Your task to perform on an android device: check storage Image 0: 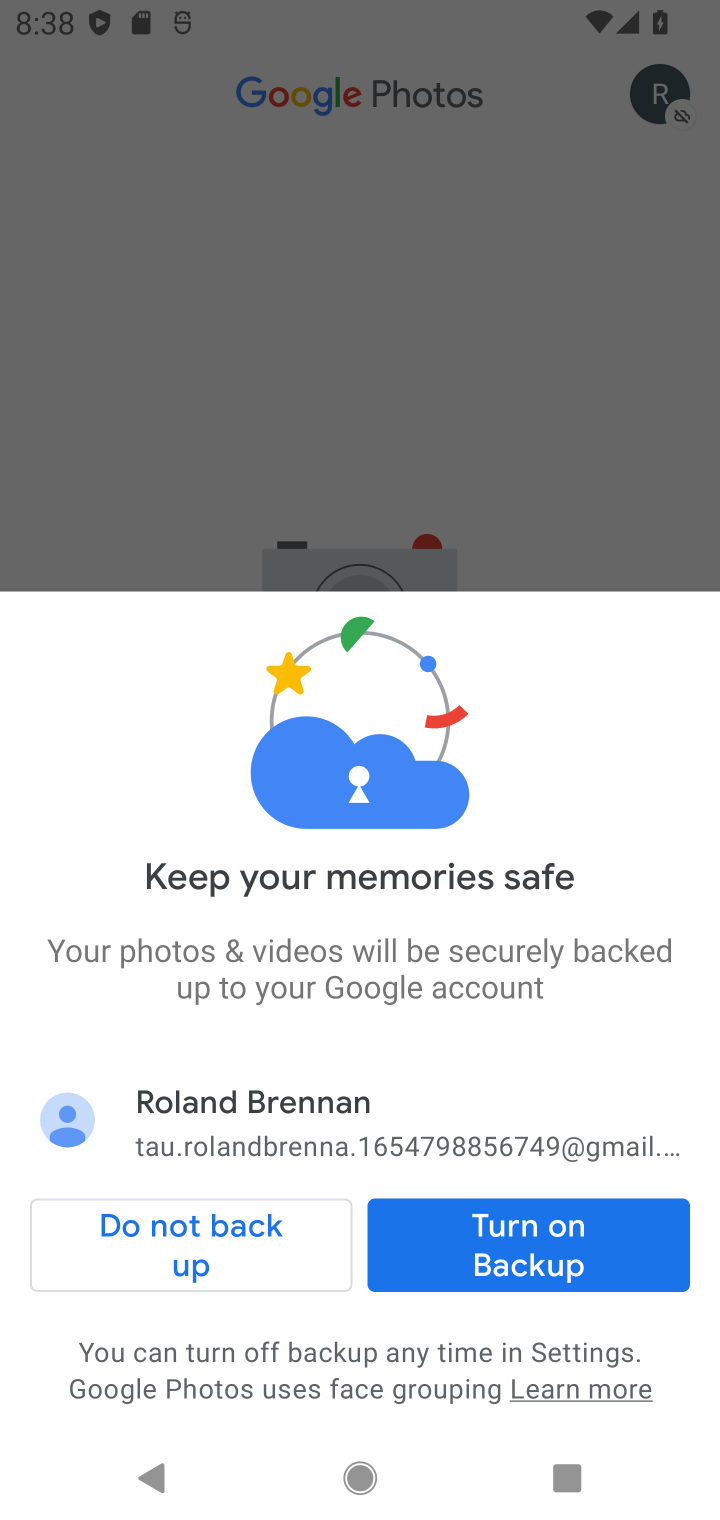
Step 0: press home button
Your task to perform on an android device: check storage Image 1: 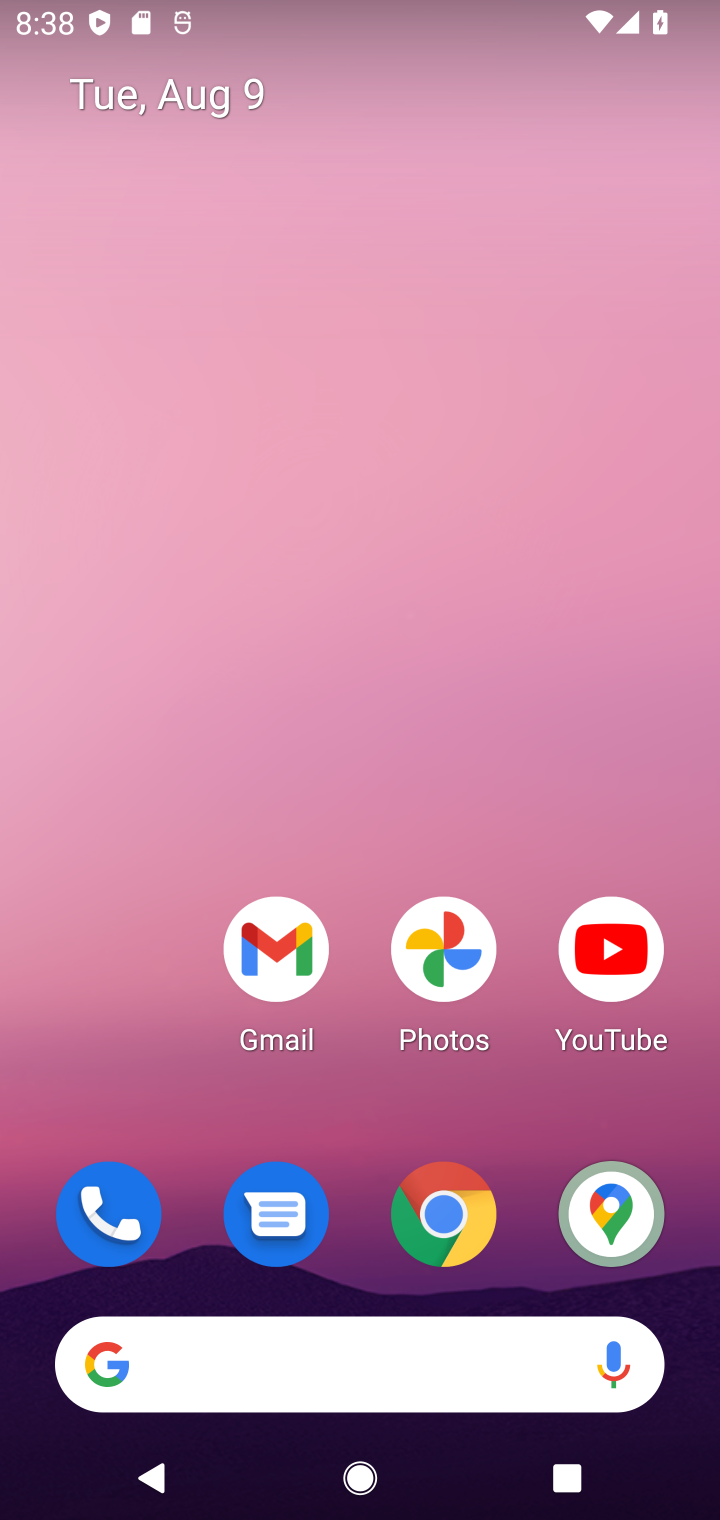
Step 1: drag from (27, 1419) to (143, 872)
Your task to perform on an android device: check storage Image 2: 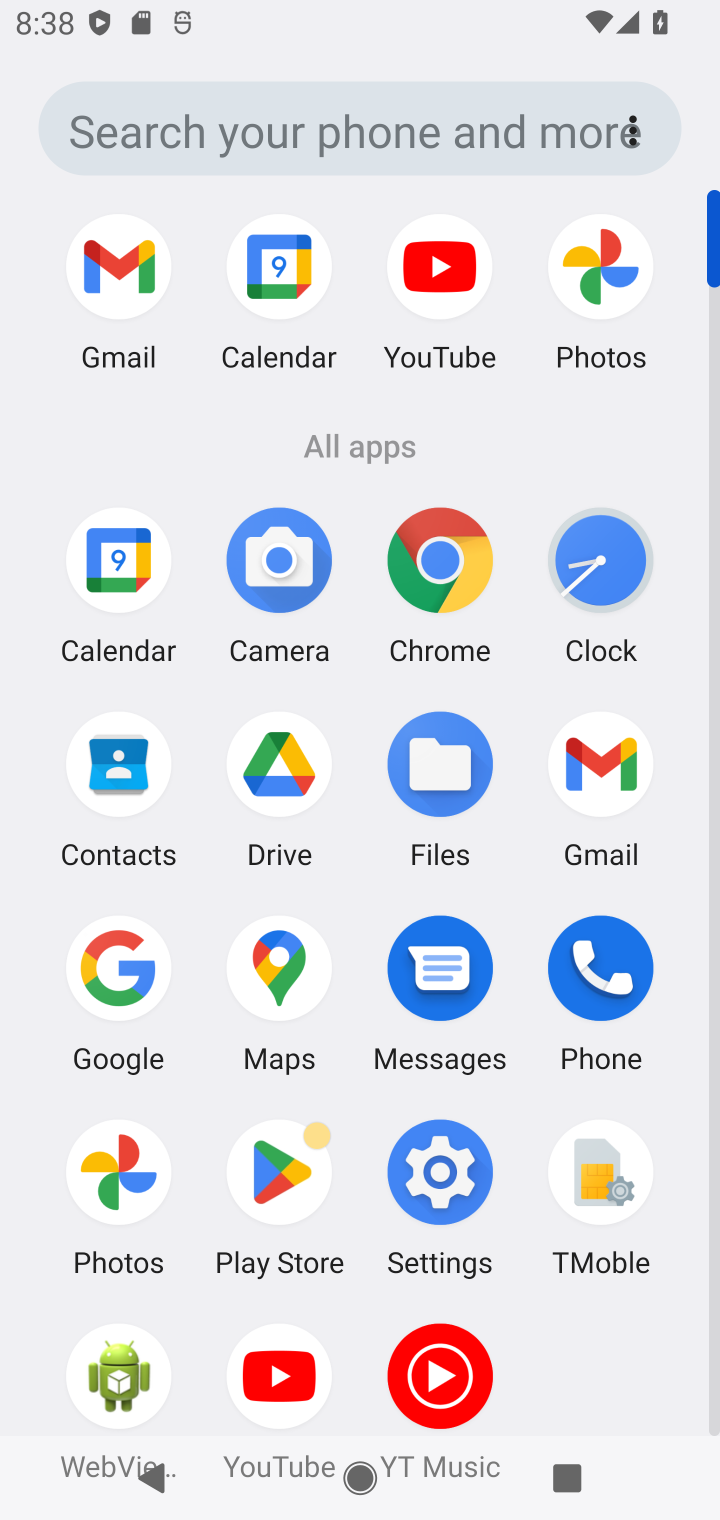
Step 2: click (388, 1177)
Your task to perform on an android device: check storage Image 3: 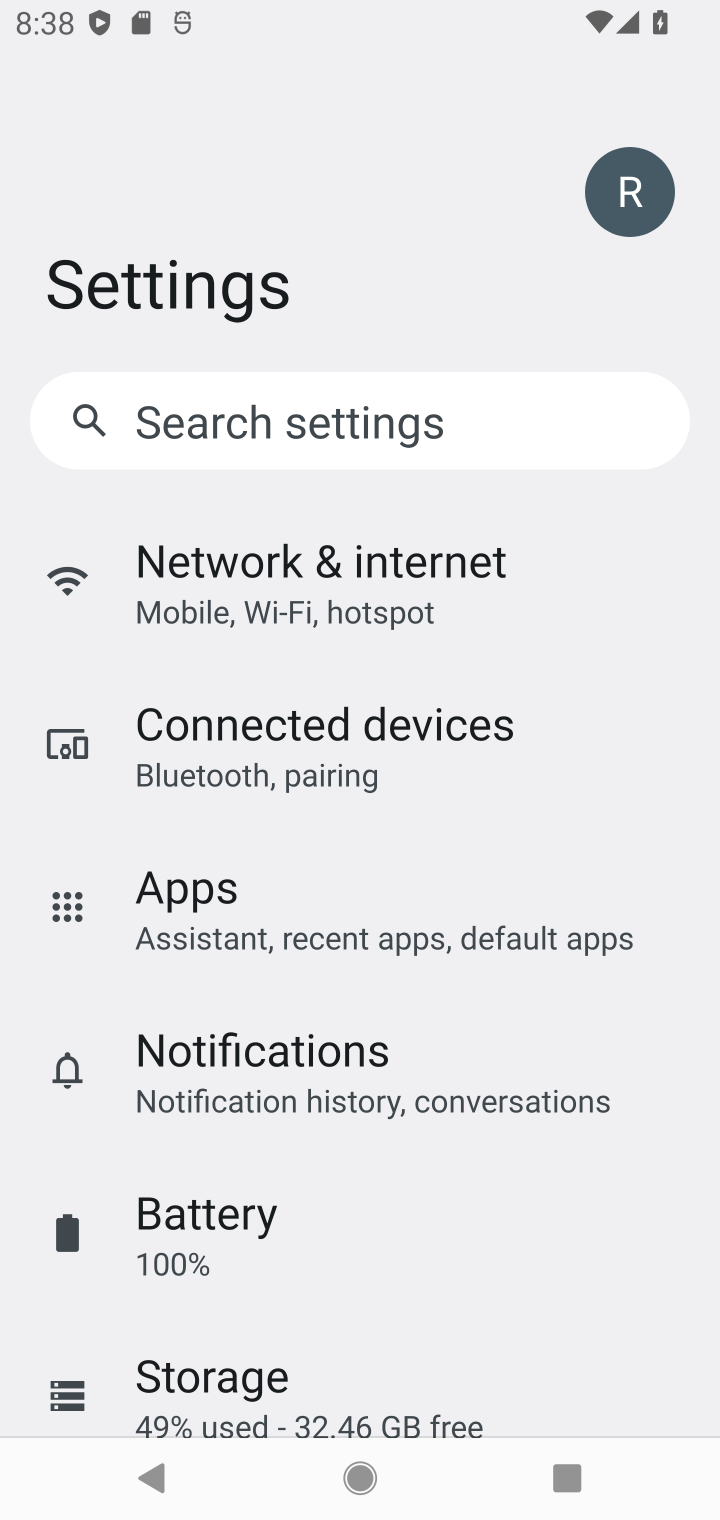
Step 3: click (241, 1369)
Your task to perform on an android device: check storage Image 4: 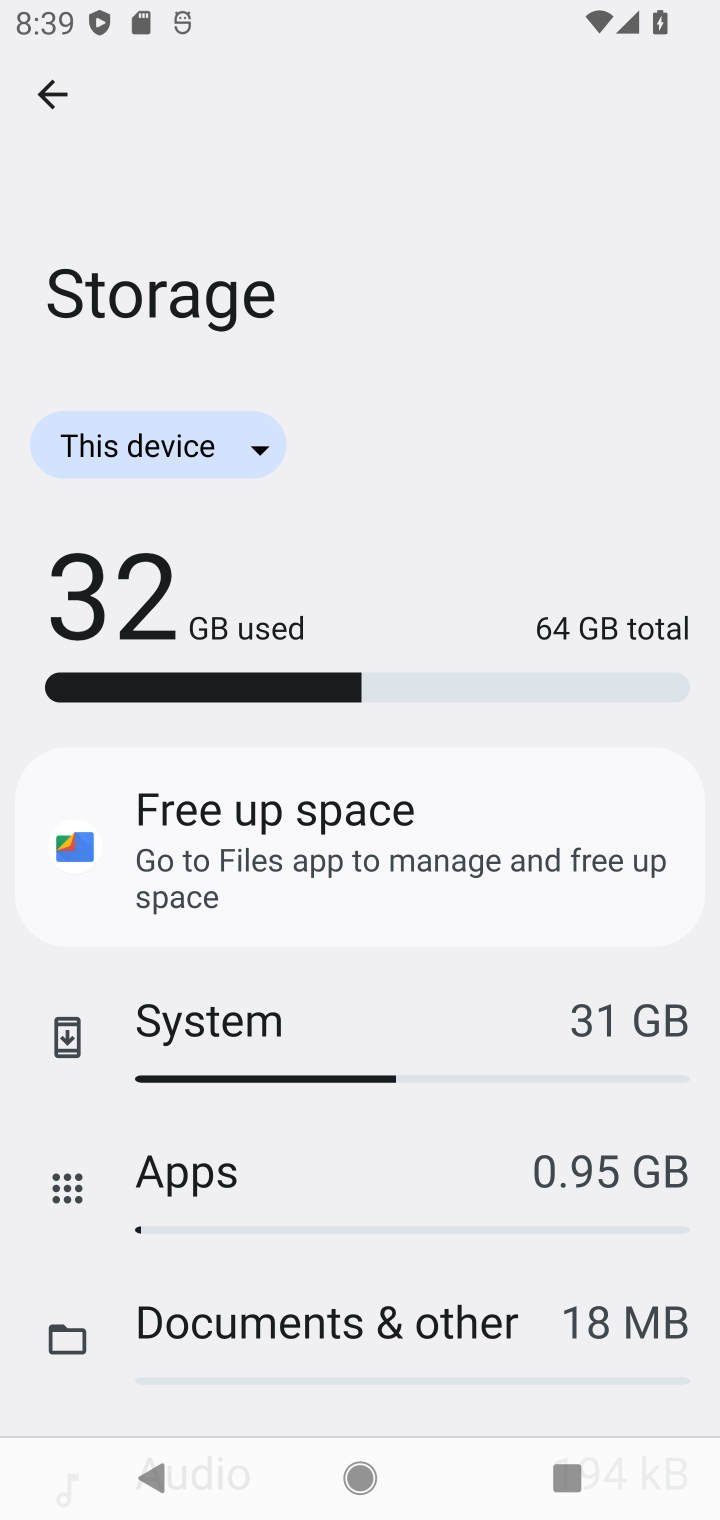
Step 4: task complete